Your task to perform on an android device: check google app version Image 0: 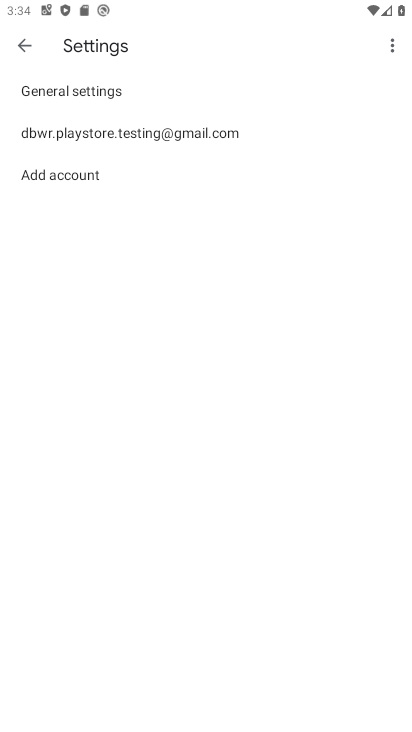
Step 0: press home button
Your task to perform on an android device: check google app version Image 1: 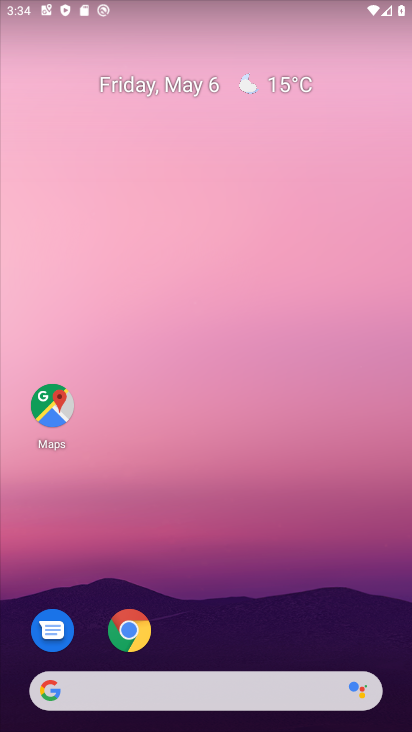
Step 1: click (100, 685)
Your task to perform on an android device: check google app version Image 2: 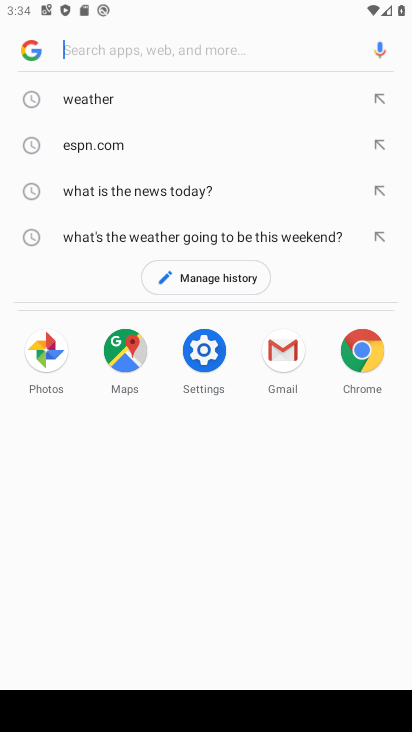
Step 2: click (25, 48)
Your task to perform on an android device: check google app version Image 3: 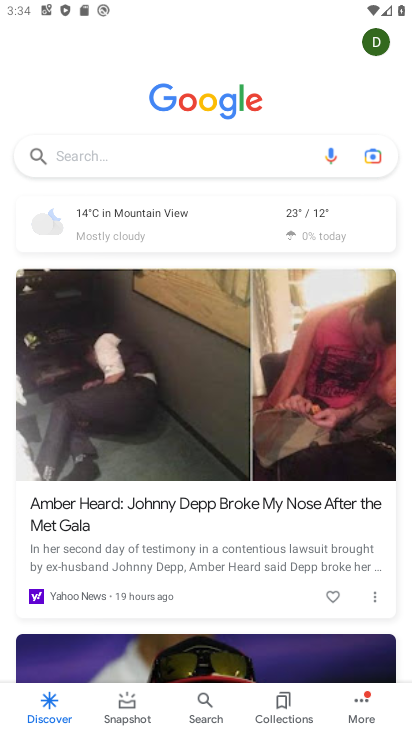
Step 3: click (362, 705)
Your task to perform on an android device: check google app version Image 4: 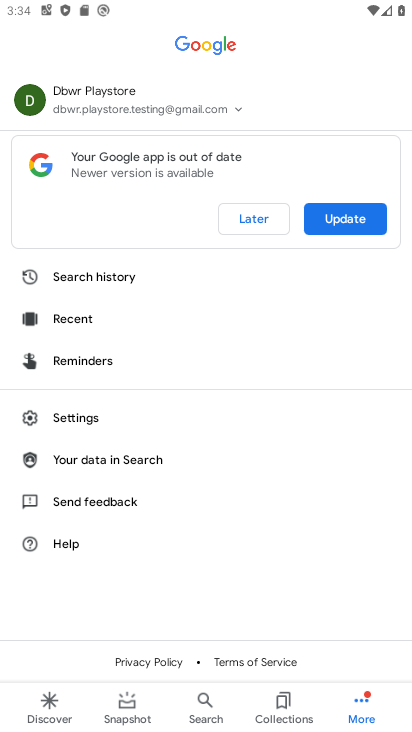
Step 4: click (77, 414)
Your task to perform on an android device: check google app version Image 5: 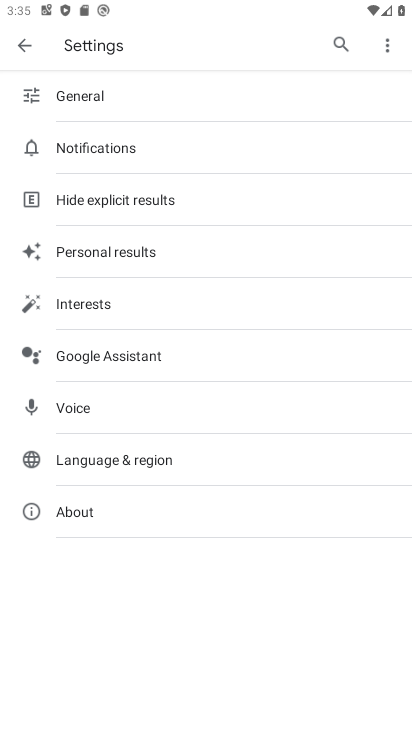
Step 5: click (69, 505)
Your task to perform on an android device: check google app version Image 6: 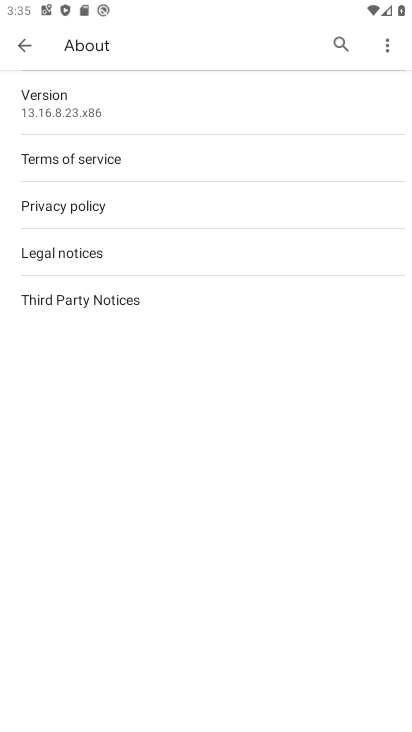
Step 6: task complete